Your task to perform on an android device: Show me recent news Image 0: 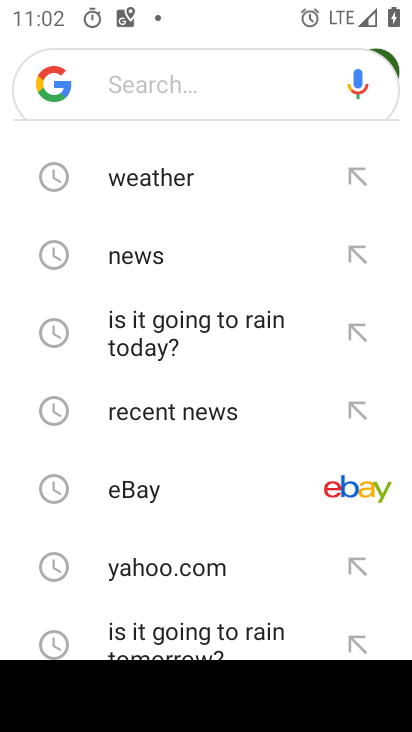
Step 0: press home button
Your task to perform on an android device: Show me recent news Image 1: 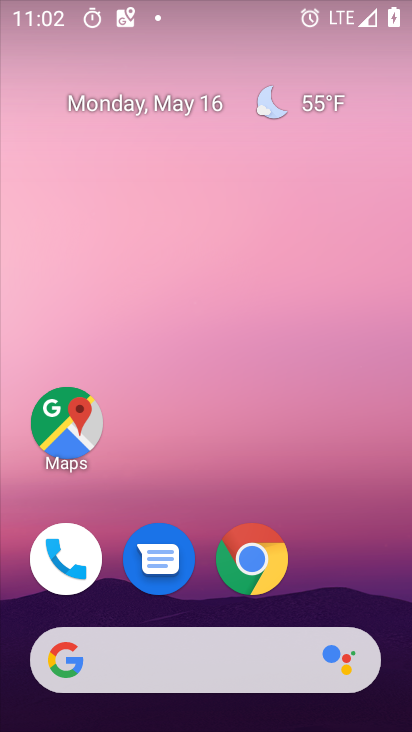
Step 1: drag from (344, 563) to (321, 148)
Your task to perform on an android device: Show me recent news Image 2: 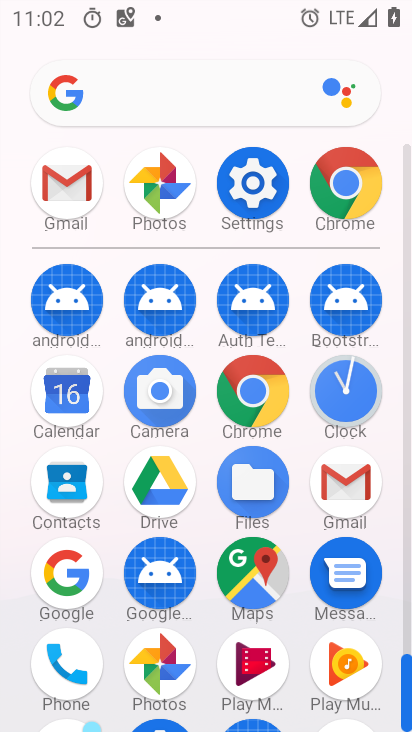
Step 2: click (343, 195)
Your task to perform on an android device: Show me recent news Image 3: 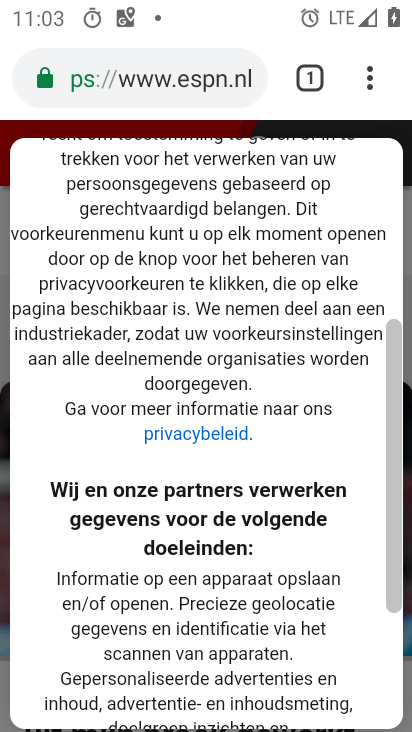
Step 3: click (382, 78)
Your task to perform on an android device: Show me recent news Image 4: 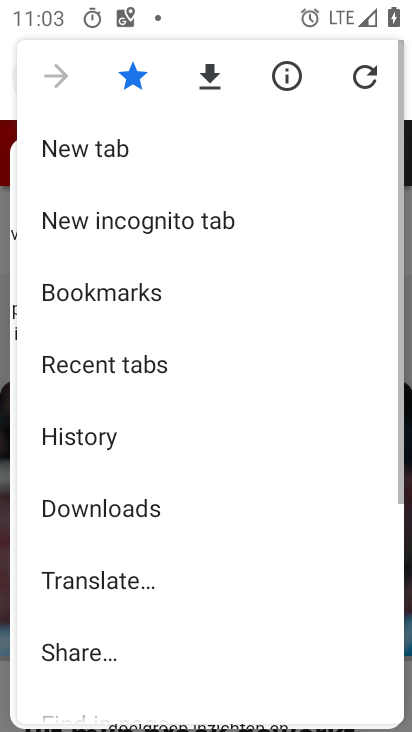
Step 4: drag from (185, 514) to (226, 116)
Your task to perform on an android device: Show me recent news Image 5: 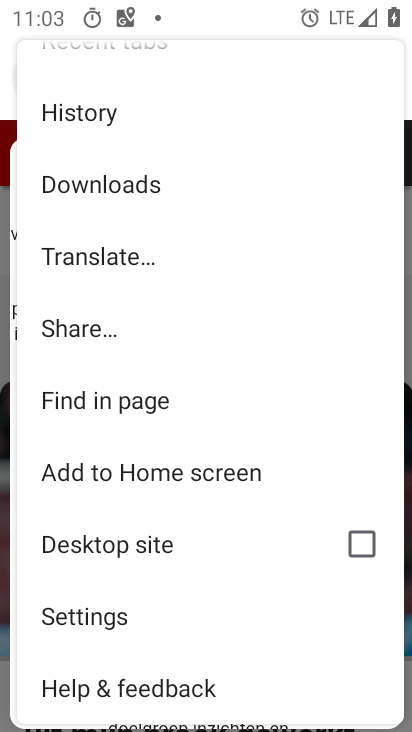
Step 5: press back button
Your task to perform on an android device: Show me recent news Image 6: 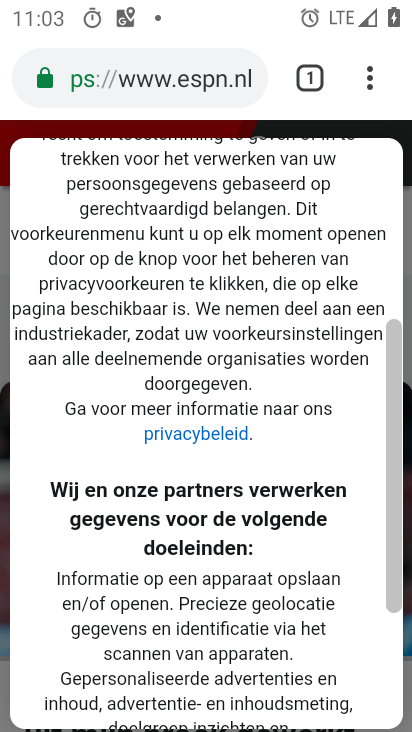
Step 6: click (183, 74)
Your task to perform on an android device: Show me recent news Image 7: 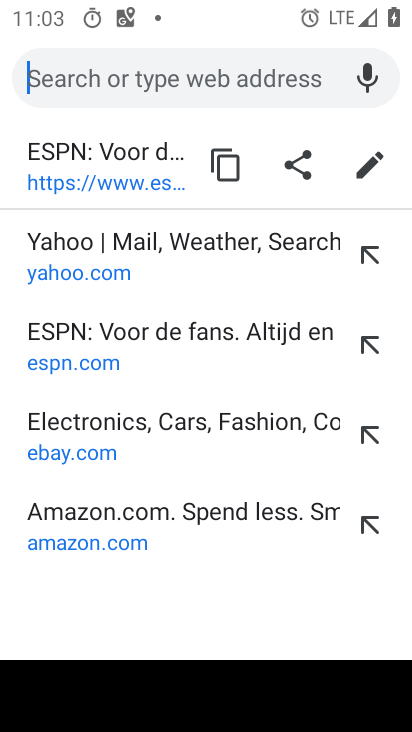
Step 7: type "news"
Your task to perform on an android device: Show me recent news Image 8: 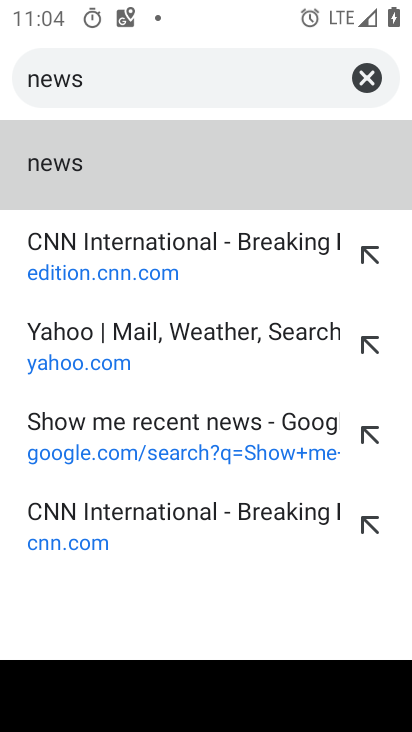
Step 8: click (80, 161)
Your task to perform on an android device: Show me recent news Image 9: 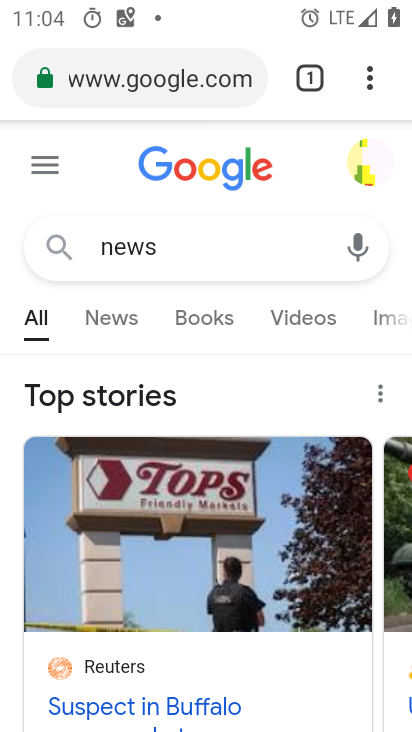
Step 9: click (111, 315)
Your task to perform on an android device: Show me recent news Image 10: 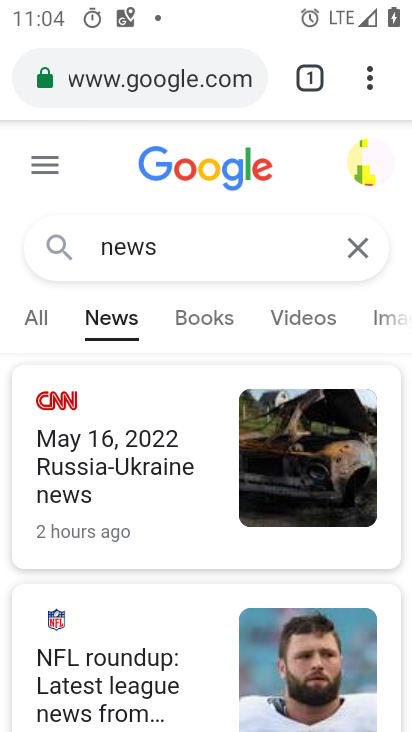
Step 10: task complete